Your task to perform on an android device: change keyboard looks Image 0: 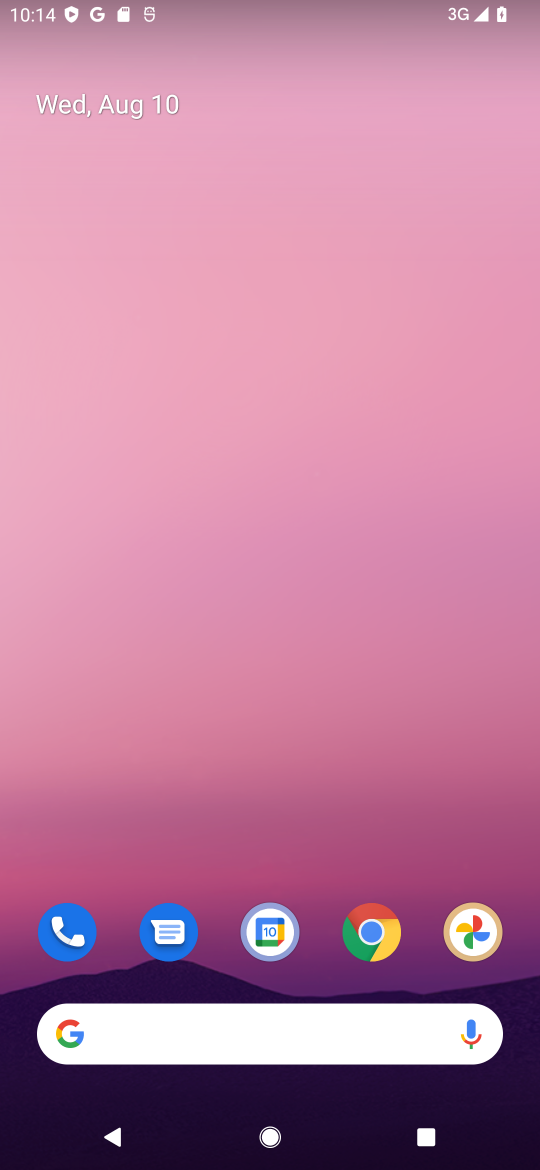
Step 0: drag from (276, 865) to (276, 130)
Your task to perform on an android device: change keyboard looks Image 1: 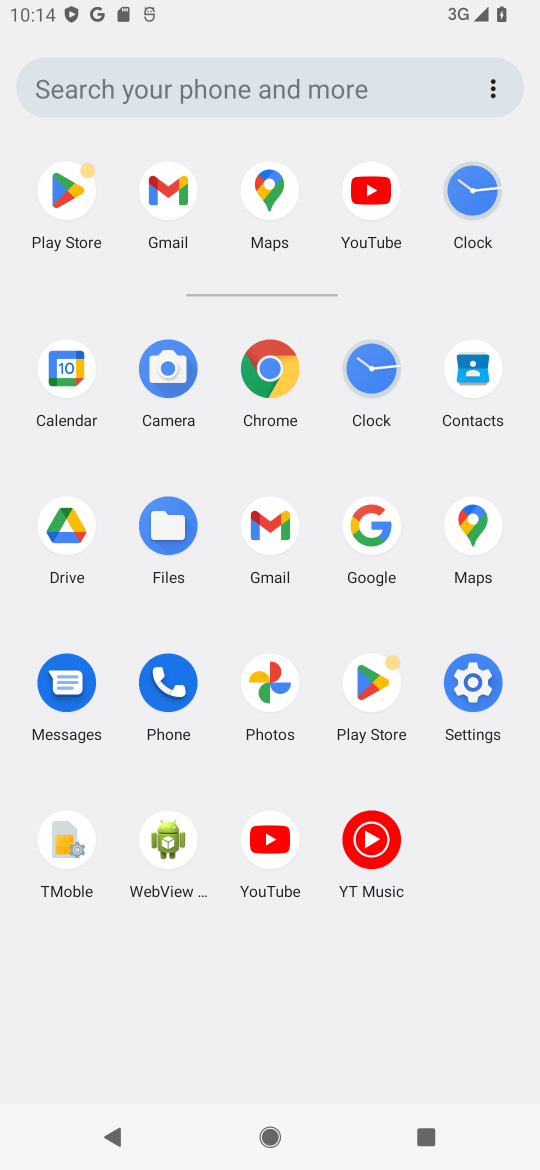
Step 1: click (481, 678)
Your task to perform on an android device: change keyboard looks Image 2: 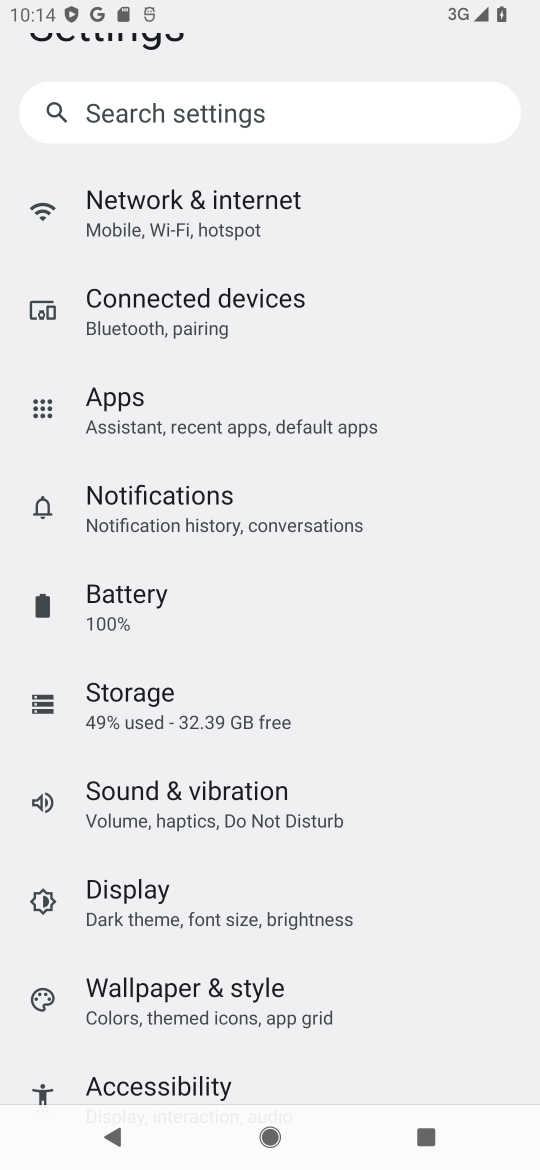
Step 2: drag from (337, 928) to (337, 331)
Your task to perform on an android device: change keyboard looks Image 3: 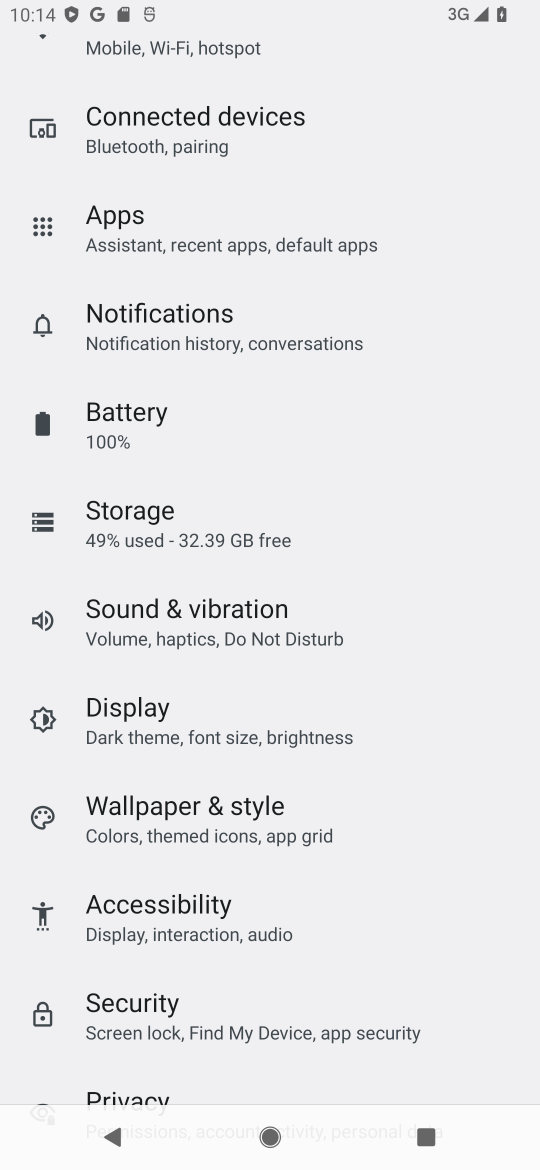
Step 3: drag from (337, 952) to (337, 444)
Your task to perform on an android device: change keyboard looks Image 4: 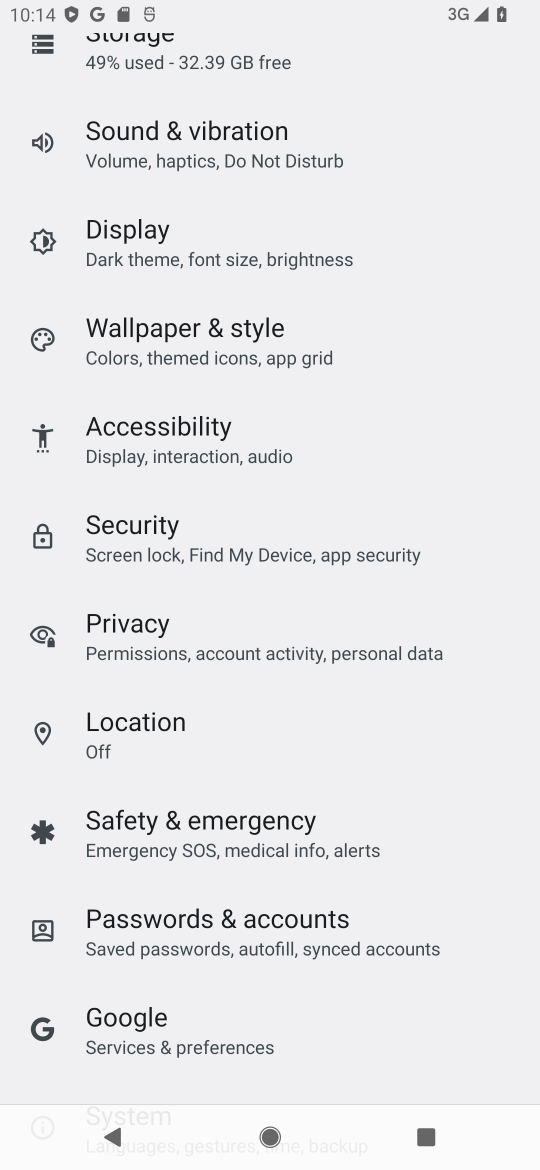
Step 4: drag from (350, 785) to (357, 348)
Your task to perform on an android device: change keyboard looks Image 5: 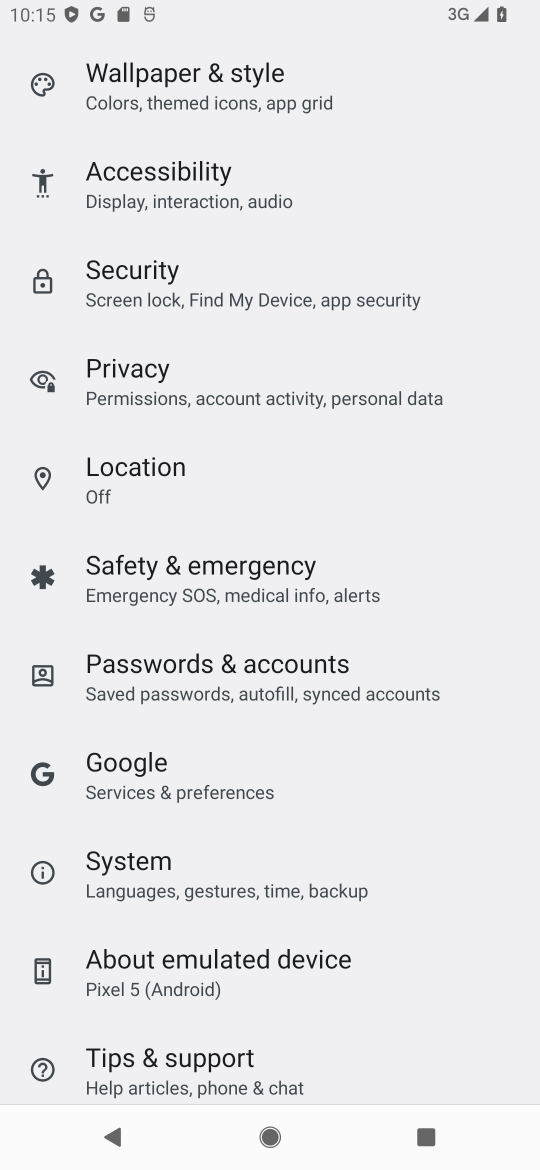
Step 5: click (159, 862)
Your task to perform on an android device: change keyboard looks Image 6: 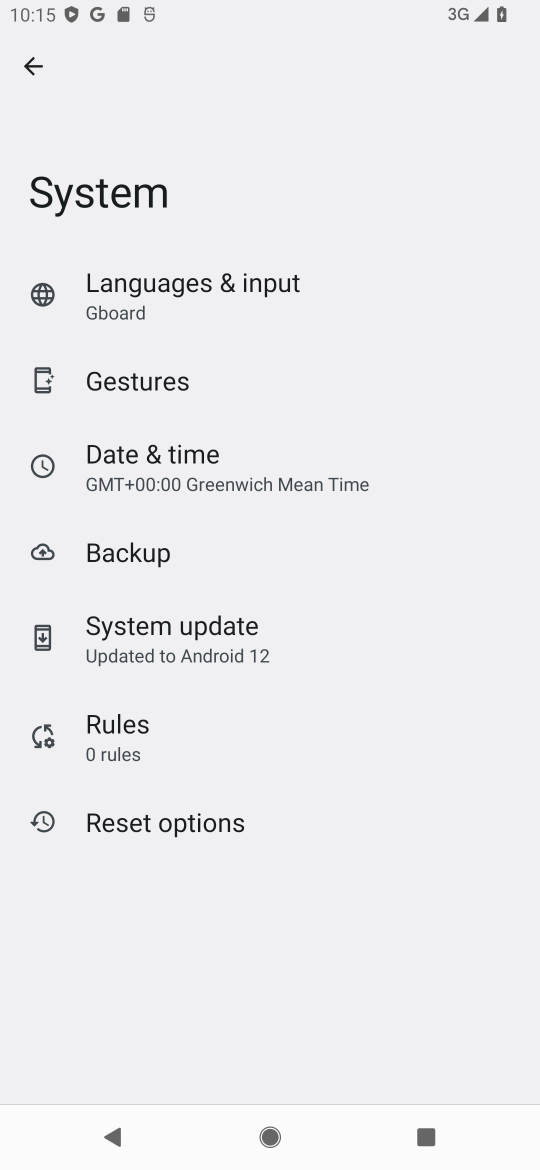
Step 6: click (123, 285)
Your task to perform on an android device: change keyboard looks Image 7: 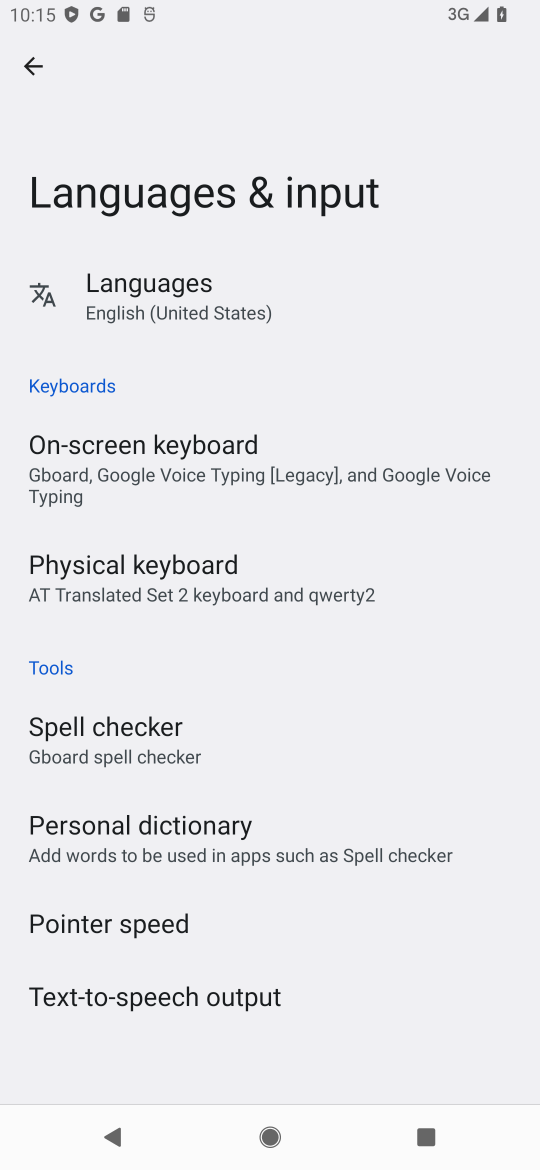
Step 7: click (126, 444)
Your task to perform on an android device: change keyboard looks Image 8: 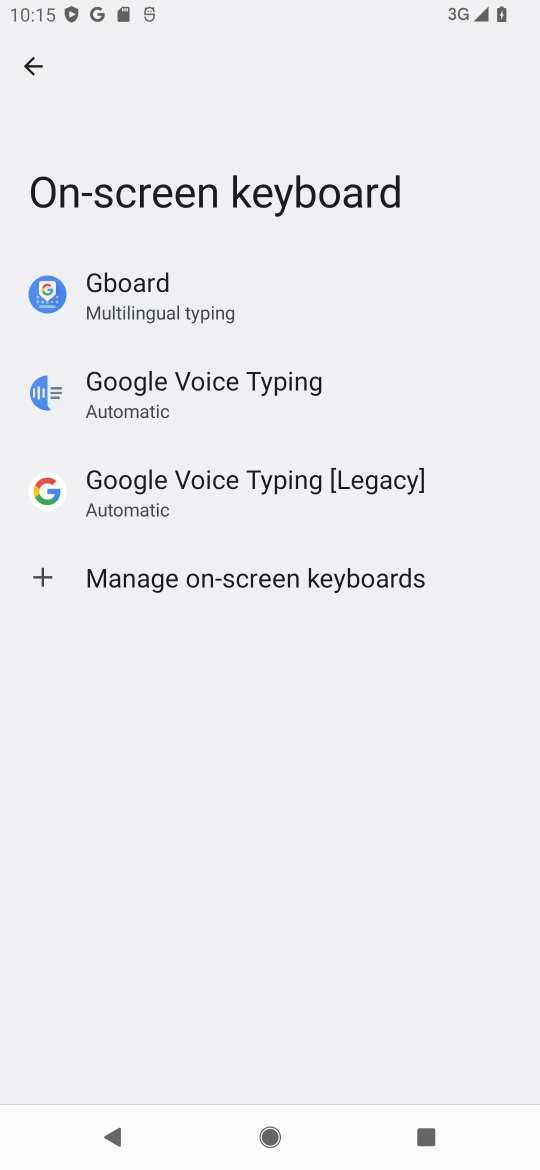
Step 8: click (111, 265)
Your task to perform on an android device: change keyboard looks Image 9: 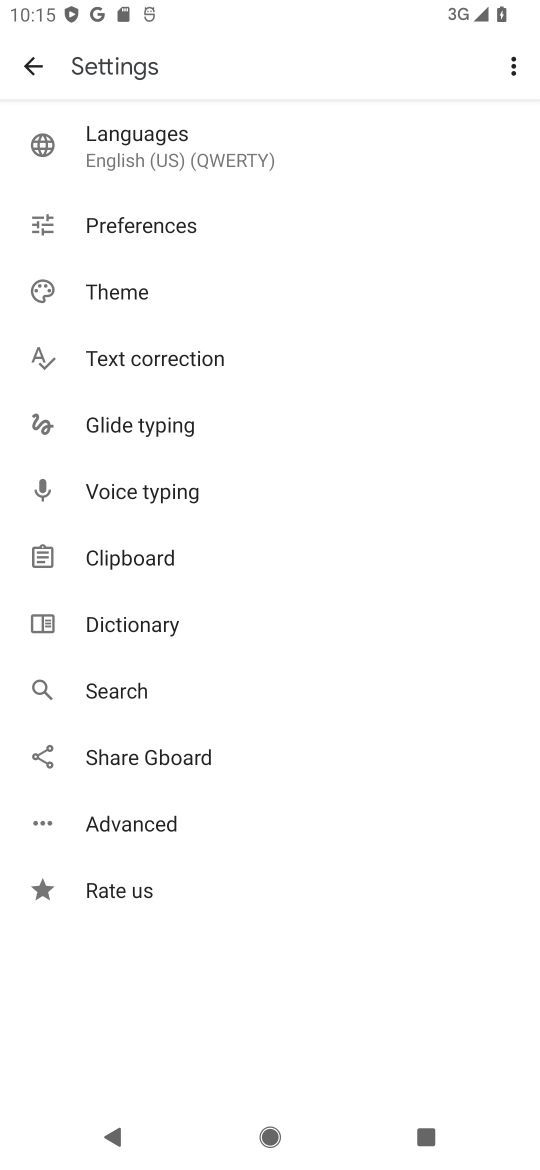
Step 9: click (124, 283)
Your task to perform on an android device: change keyboard looks Image 10: 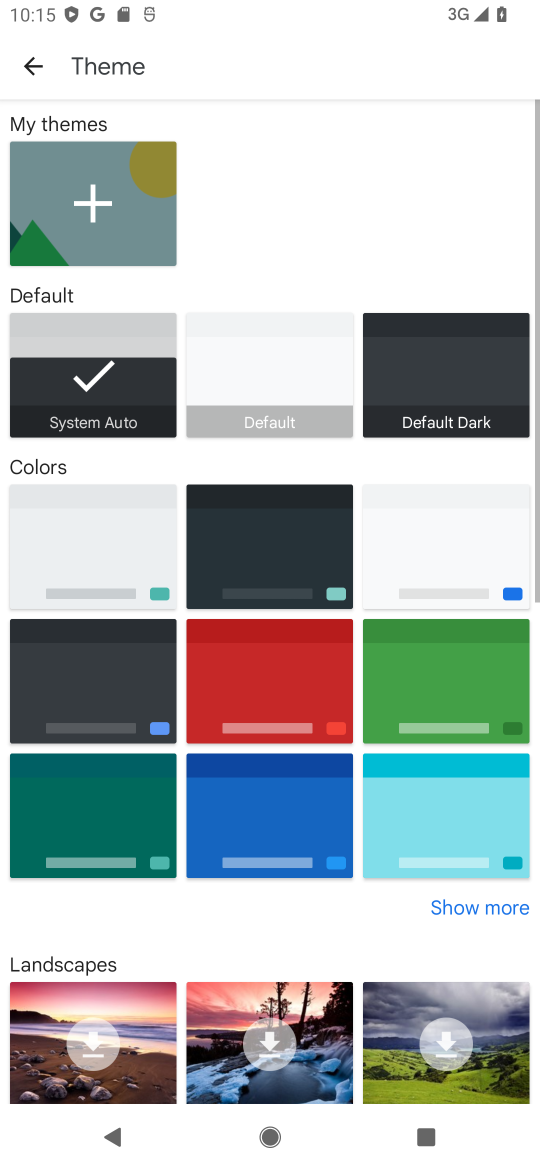
Step 10: click (252, 548)
Your task to perform on an android device: change keyboard looks Image 11: 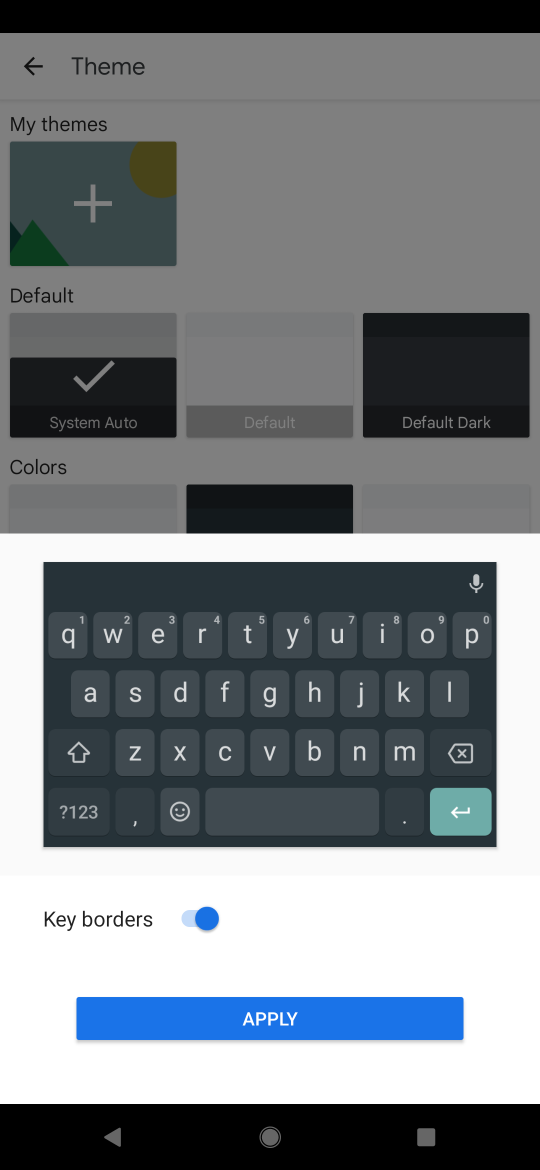
Step 11: click (280, 1004)
Your task to perform on an android device: change keyboard looks Image 12: 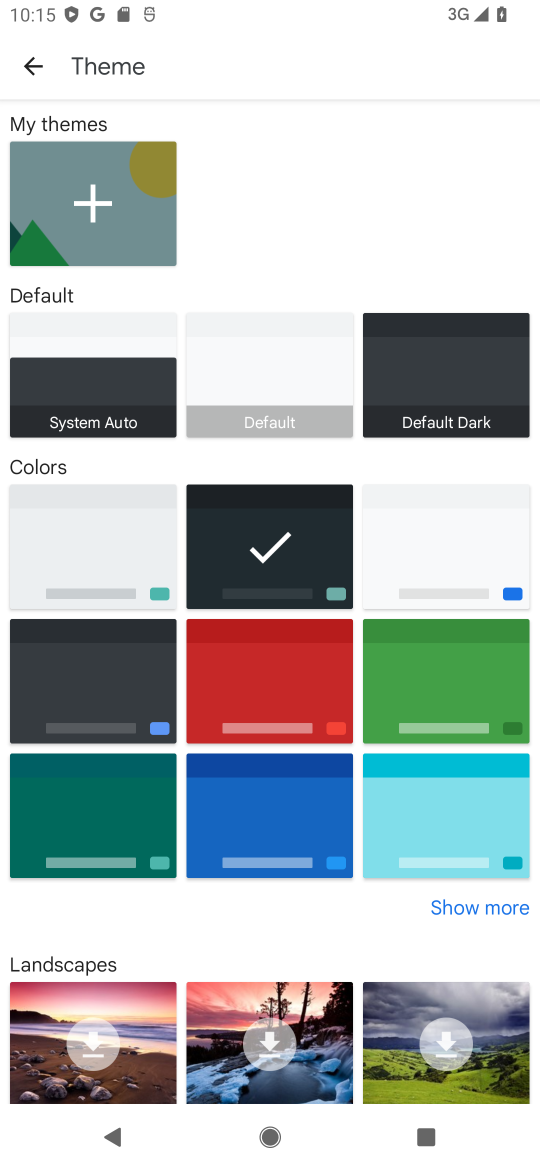
Step 12: task complete